Your task to perform on an android device: Toggle the flashlight Image 0: 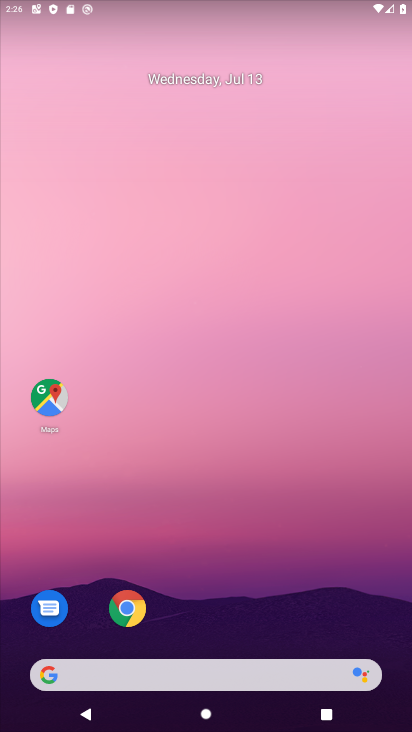
Step 0: drag from (201, 437) to (211, 5)
Your task to perform on an android device: Toggle the flashlight Image 1: 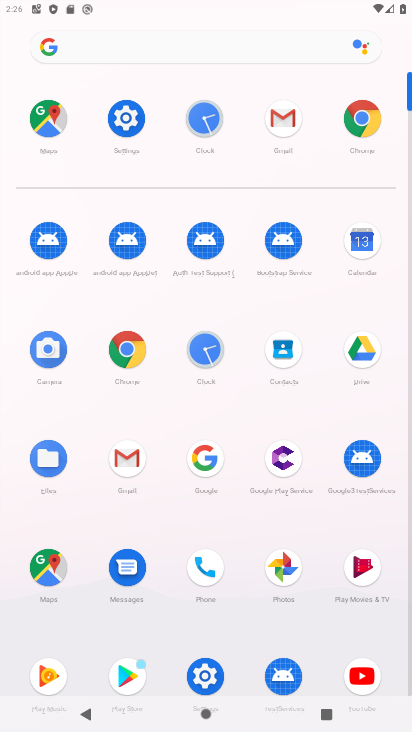
Step 1: click (126, 133)
Your task to perform on an android device: Toggle the flashlight Image 2: 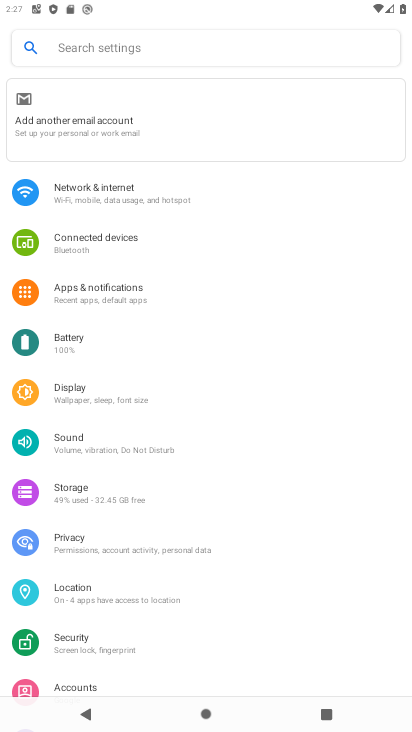
Step 2: task complete